Your task to perform on an android device: check storage Image 0: 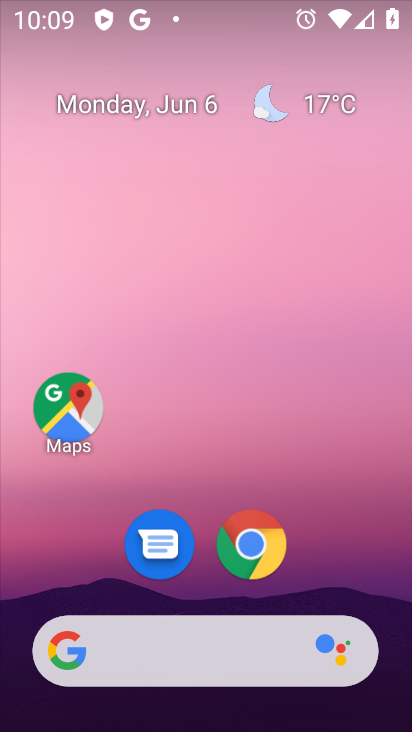
Step 0: drag from (100, 561) to (187, 166)
Your task to perform on an android device: check storage Image 1: 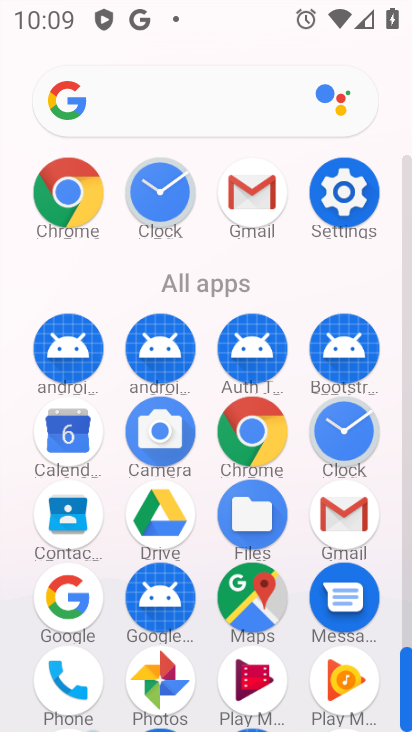
Step 1: drag from (193, 602) to (324, 248)
Your task to perform on an android device: check storage Image 2: 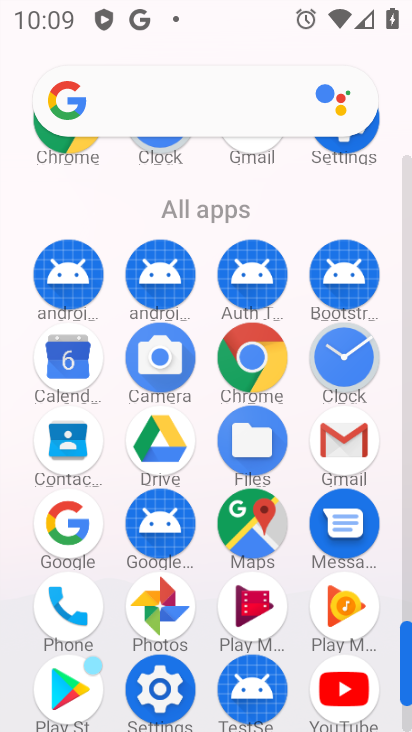
Step 2: click (178, 683)
Your task to perform on an android device: check storage Image 3: 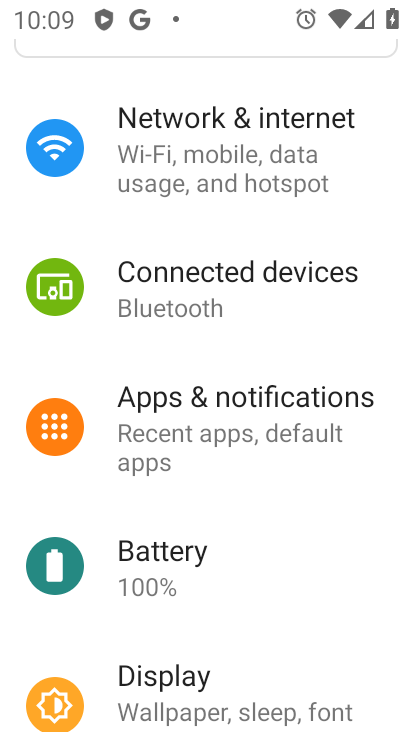
Step 3: drag from (178, 679) to (281, 350)
Your task to perform on an android device: check storage Image 4: 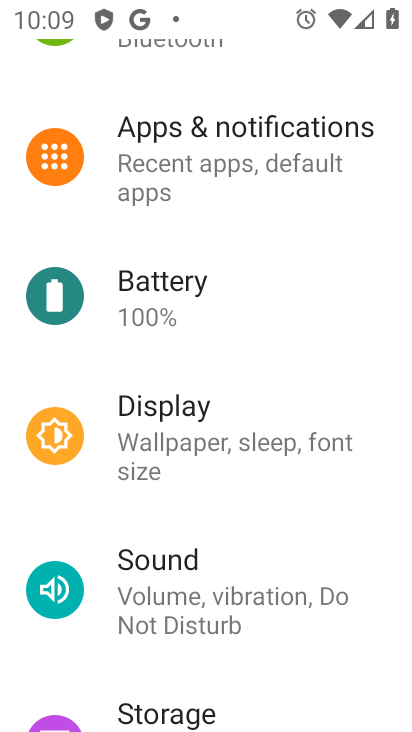
Step 4: click (191, 719)
Your task to perform on an android device: check storage Image 5: 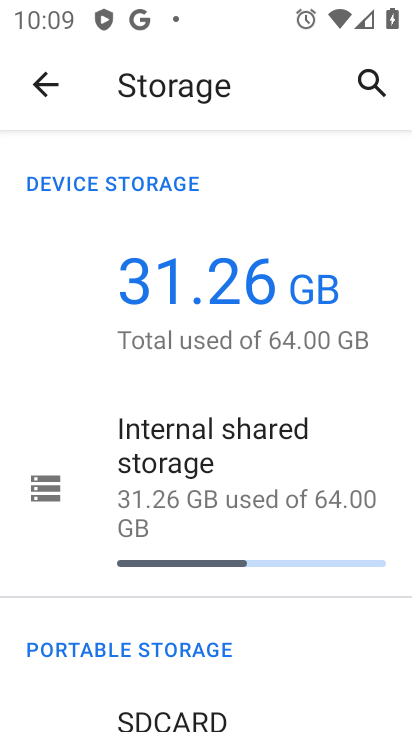
Step 5: task complete